Your task to perform on an android device: Open eBay Image 0: 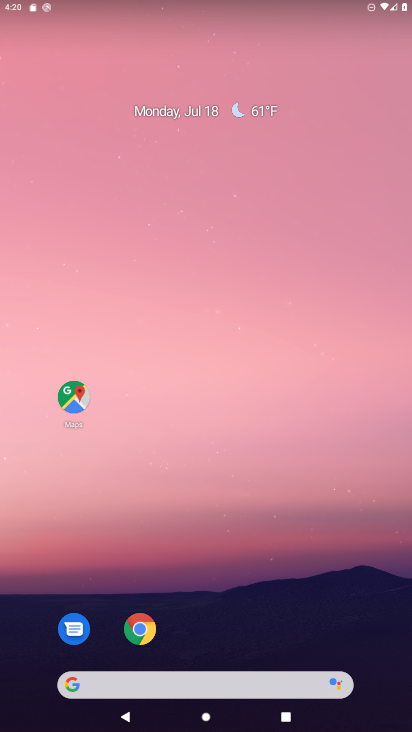
Step 0: click (140, 627)
Your task to perform on an android device: Open eBay Image 1: 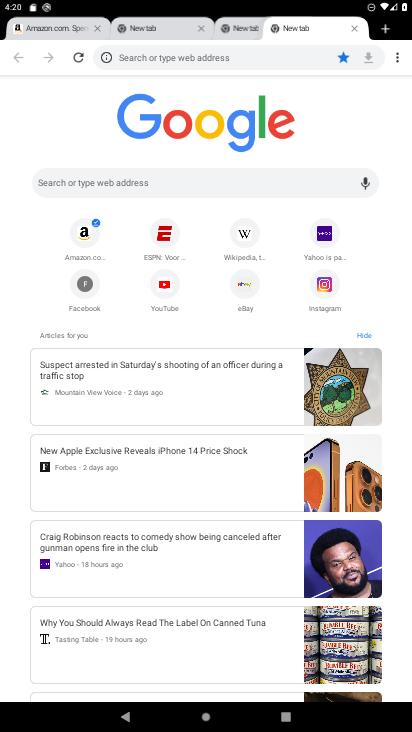
Step 1: click (245, 292)
Your task to perform on an android device: Open eBay Image 2: 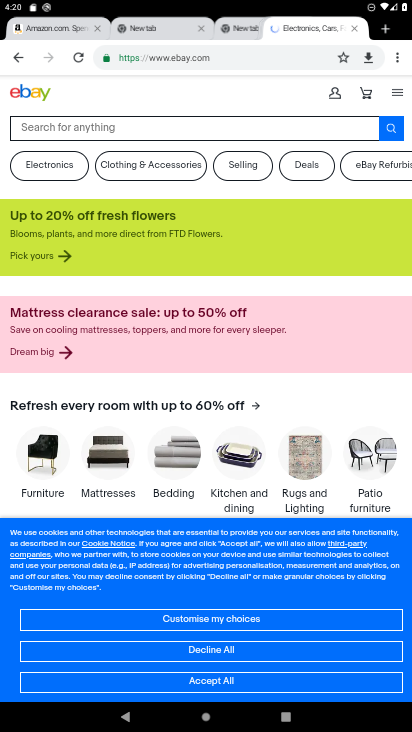
Step 2: task complete